Your task to perform on an android device: change the clock style Image 0: 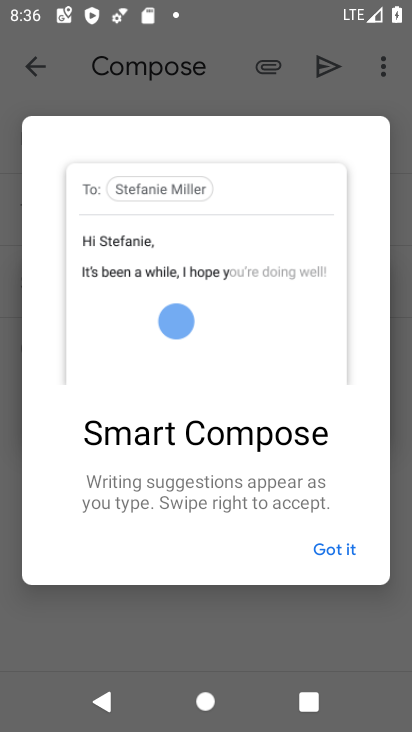
Step 0: press home button
Your task to perform on an android device: change the clock style Image 1: 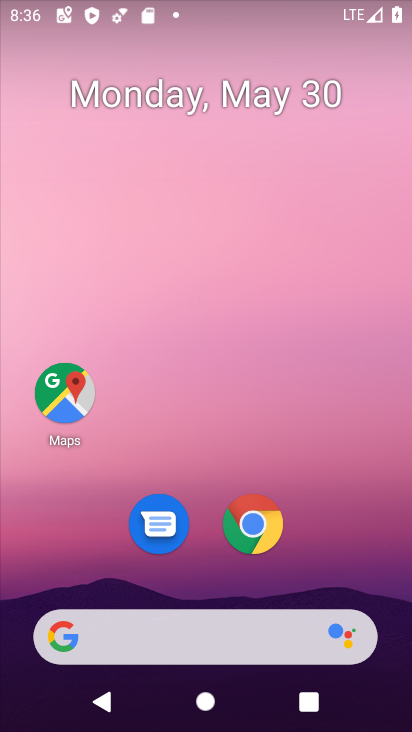
Step 1: drag from (214, 468) to (218, 7)
Your task to perform on an android device: change the clock style Image 2: 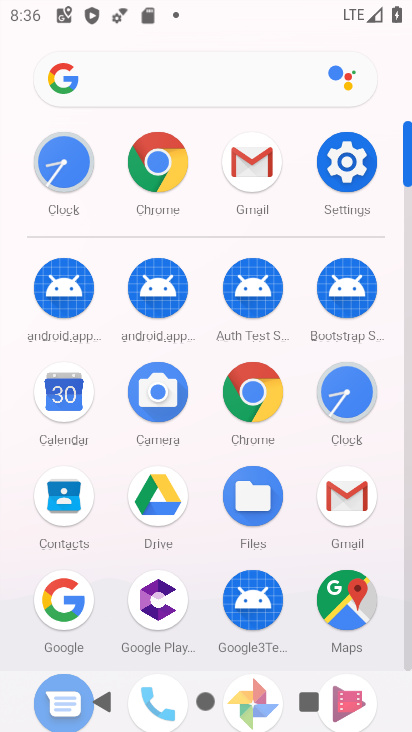
Step 2: click (66, 159)
Your task to perform on an android device: change the clock style Image 3: 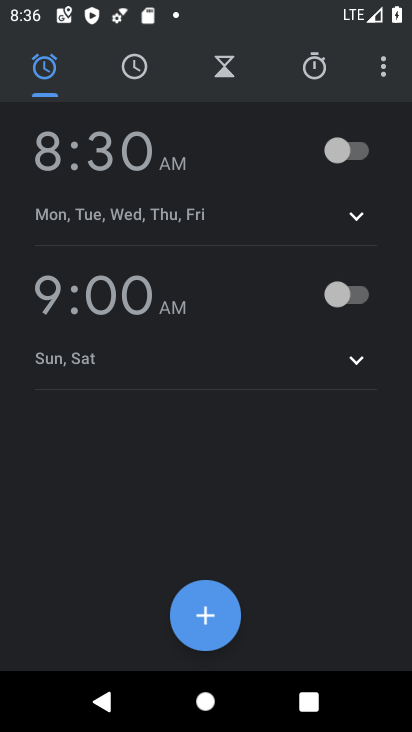
Step 3: click (378, 72)
Your task to perform on an android device: change the clock style Image 4: 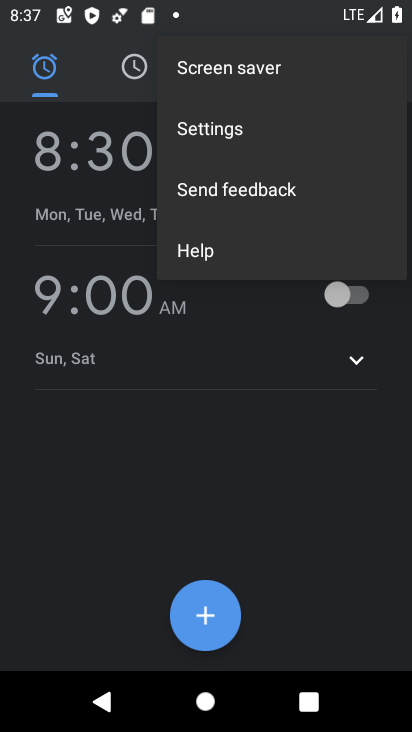
Step 4: click (278, 135)
Your task to perform on an android device: change the clock style Image 5: 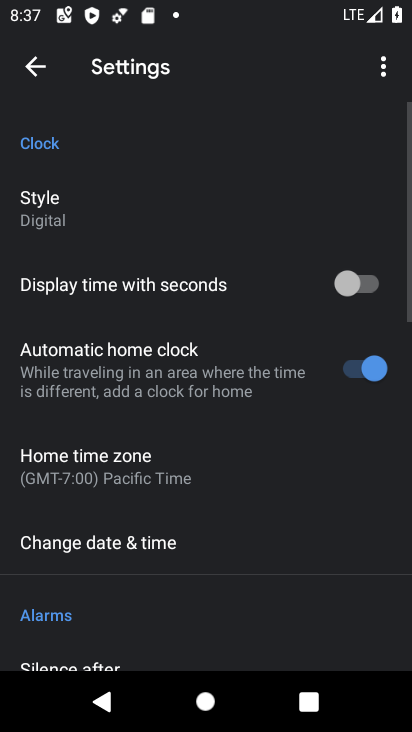
Step 5: click (119, 216)
Your task to perform on an android device: change the clock style Image 6: 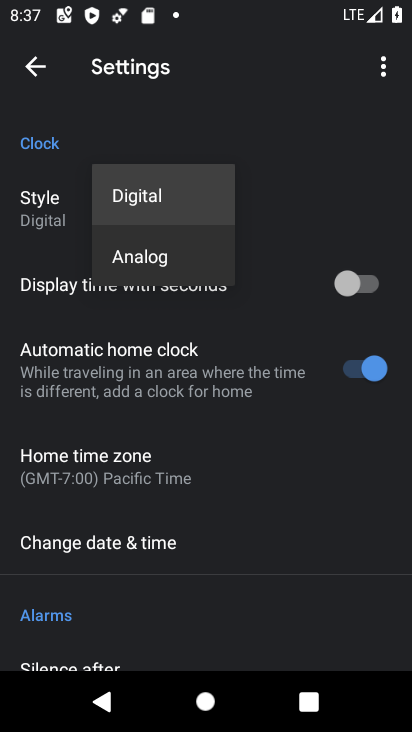
Step 6: click (139, 255)
Your task to perform on an android device: change the clock style Image 7: 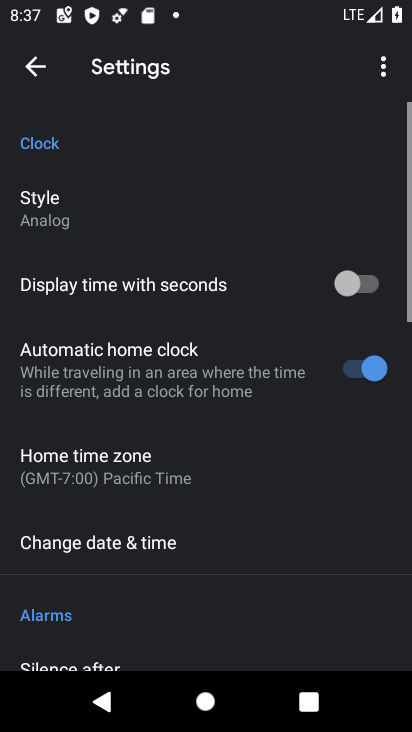
Step 7: click (35, 72)
Your task to perform on an android device: change the clock style Image 8: 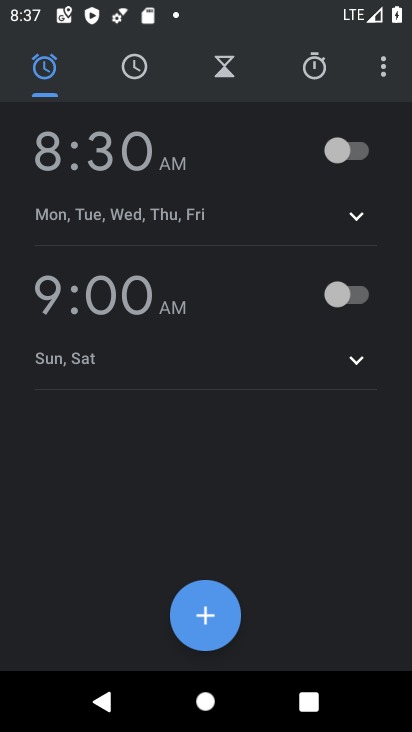
Step 8: click (134, 67)
Your task to perform on an android device: change the clock style Image 9: 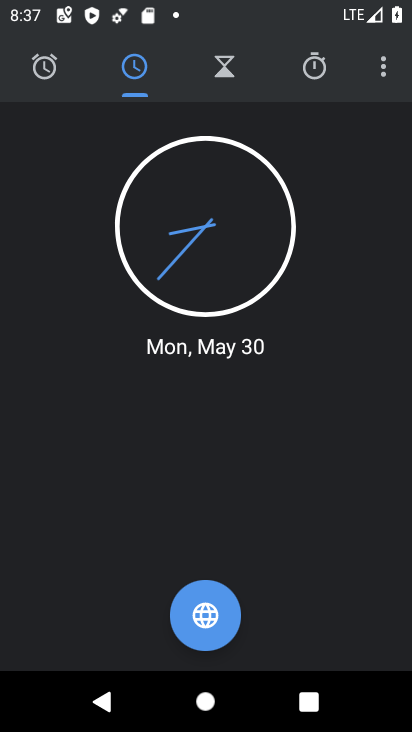
Step 9: task complete